Your task to perform on an android device: Clear the cart on newegg.com. Add acer nitro to the cart on newegg.com Image 0: 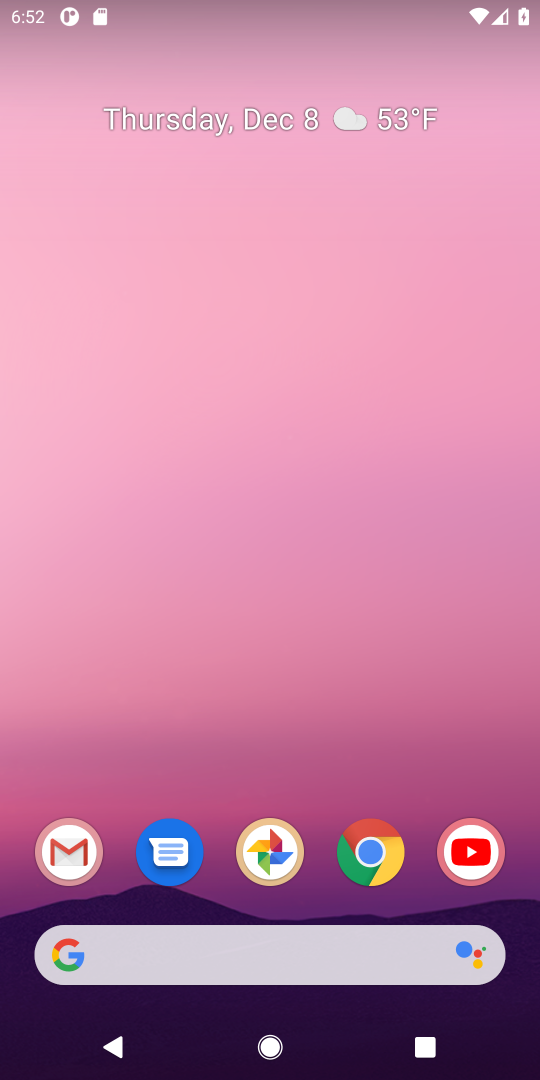
Step 0: click (324, 961)
Your task to perform on an android device: Clear the cart on newegg.com. Add acer nitro to the cart on newegg.com Image 1: 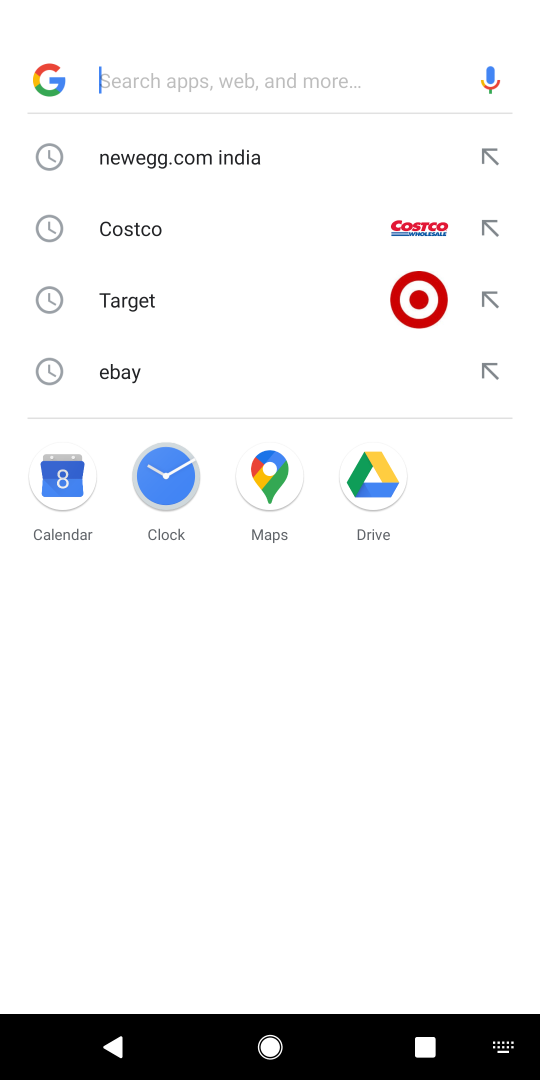
Step 1: type "newegg.cm"
Your task to perform on an android device: Clear the cart on newegg.com. Add acer nitro to the cart on newegg.com Image 2: 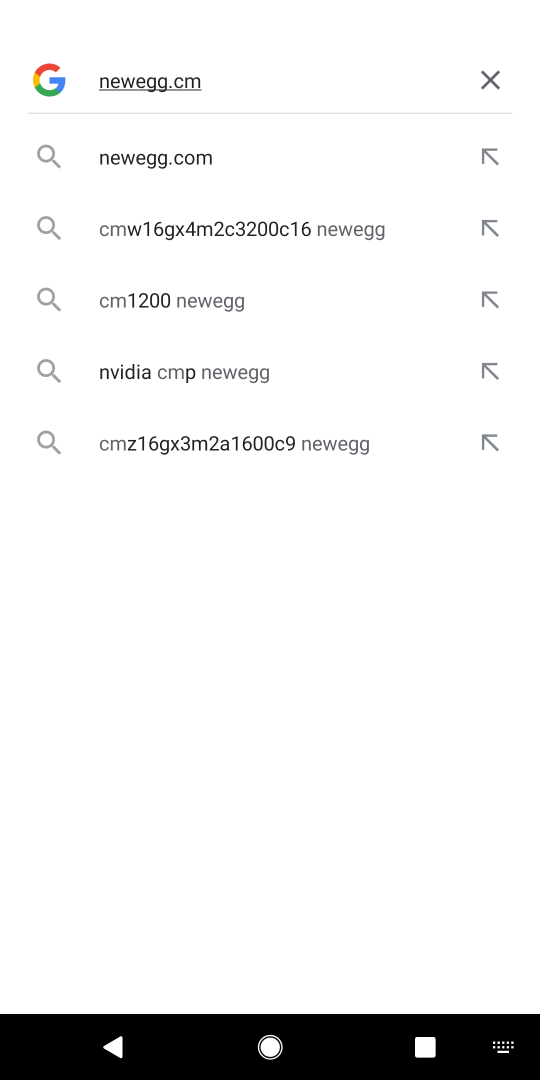
Step 2: click (153, 170)
Your task to perform on an android device: Clear the cart on newegg.com. Add acer nitro to the cart on newegg.com Image 3: 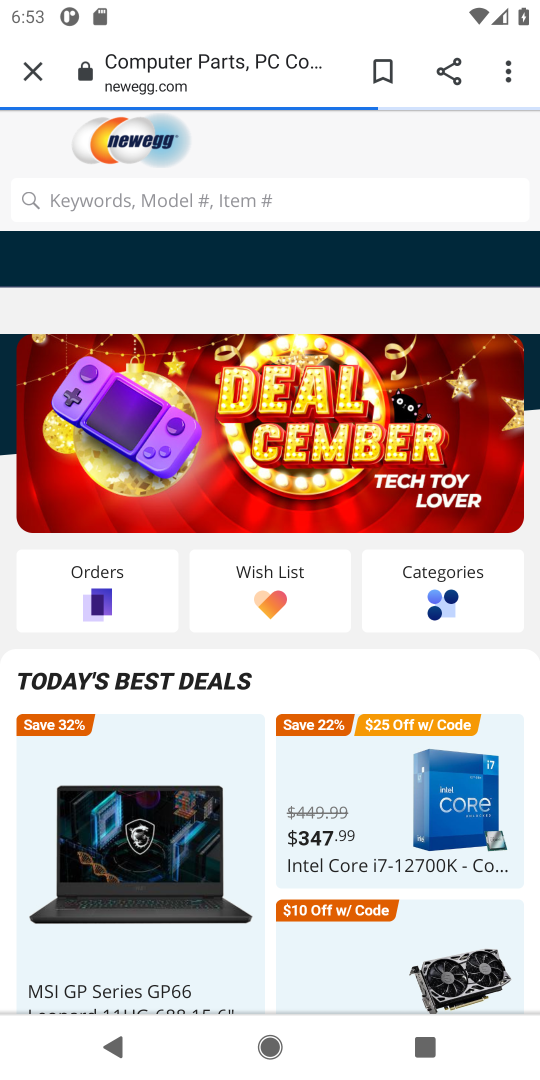
Step 3: click (153, 170)
Your task to perform on an android device: Clear the cart on newegg.com. Add acer nitro to the cart on newegg.com Image 4: 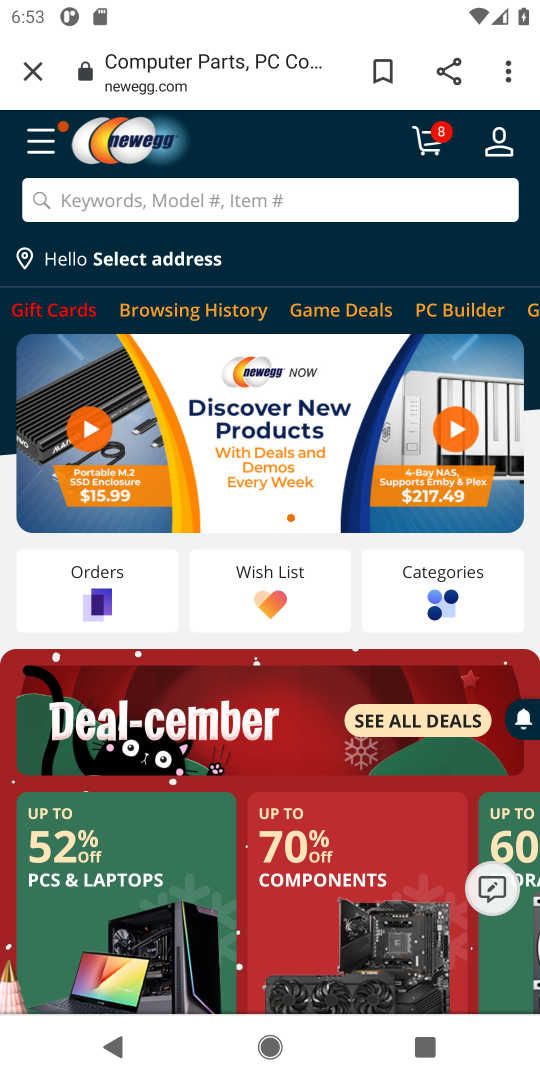
Step 4: task complete